Your task to perform on an android device: clear history in the chrome app Image 0: 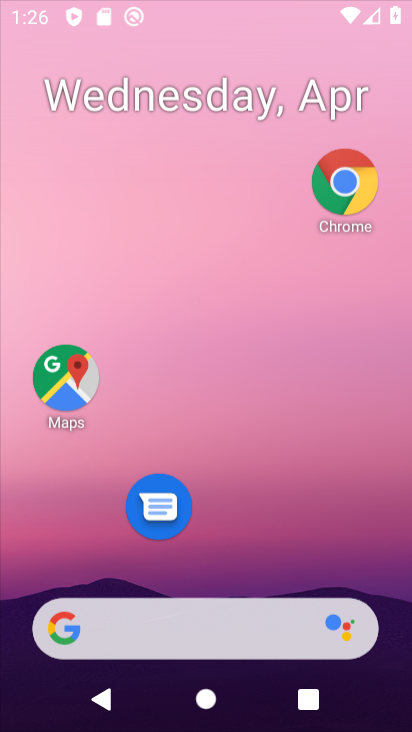
Step 0: click (397, 456)
Your task to perform on an android device: clear history in the chrome app Image 1: 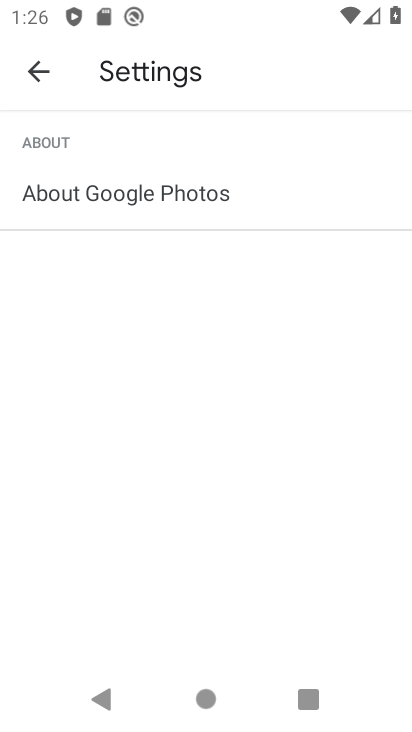
Step 1: press home button
Your task to perform on an android device: clear history in the chrome app Image 2: 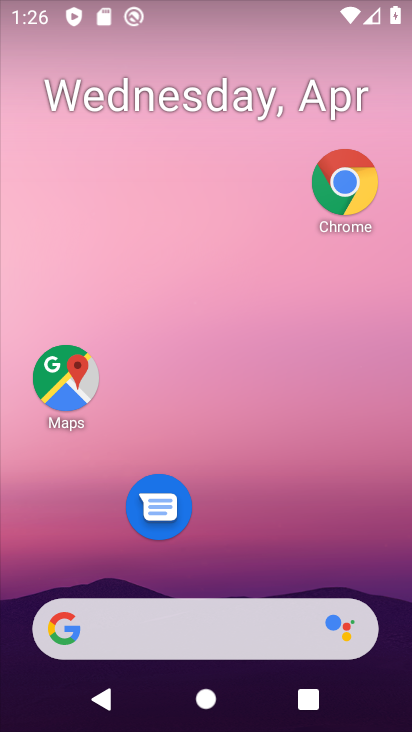
Step 2: click (350, 167)
Your task to perform on an android device: clear history in the chrome app Image 3: 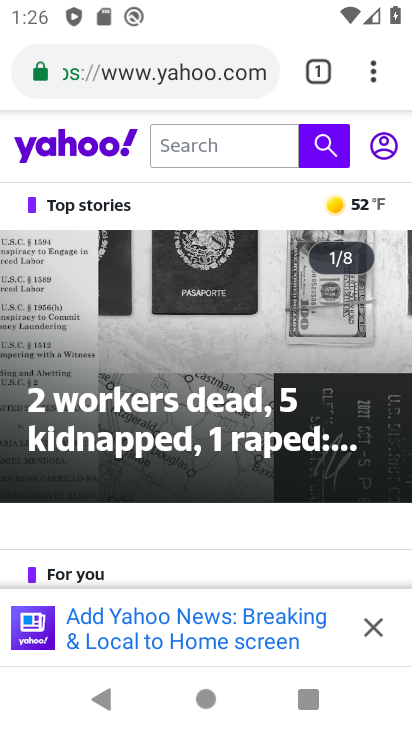
Step 3: click (399, 77)
Your task to perform on an android device: clear history in the chrome app Image 4: 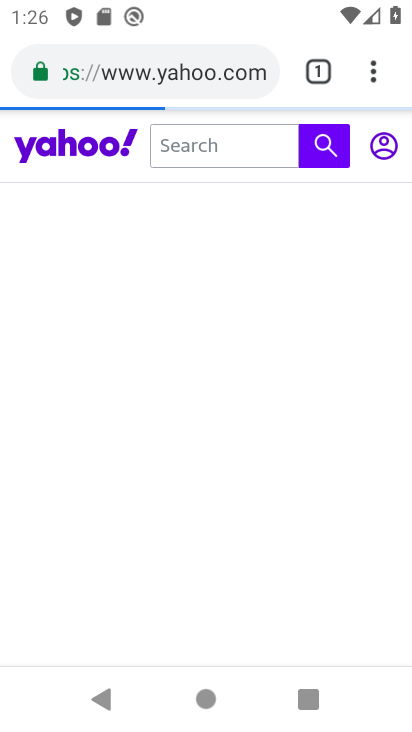
Step 4: drag from (365, 73) to (114, 504)
Your task to perform on an android device: clear history in the chrome app Image 5: 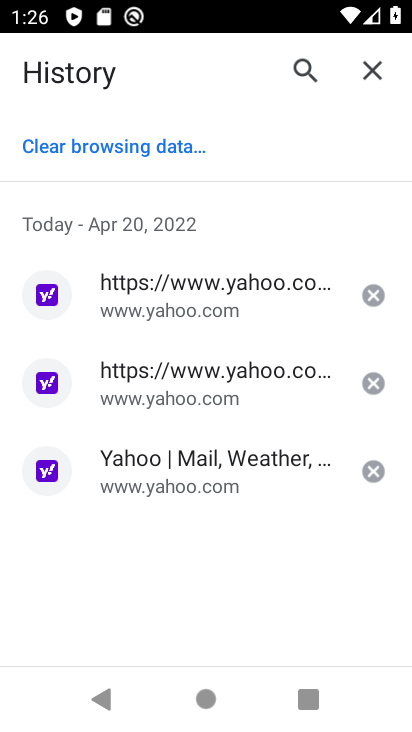
Step 5: click (116, 138)
Your task to perform on an android device: clear history in the chrome app Image 6: 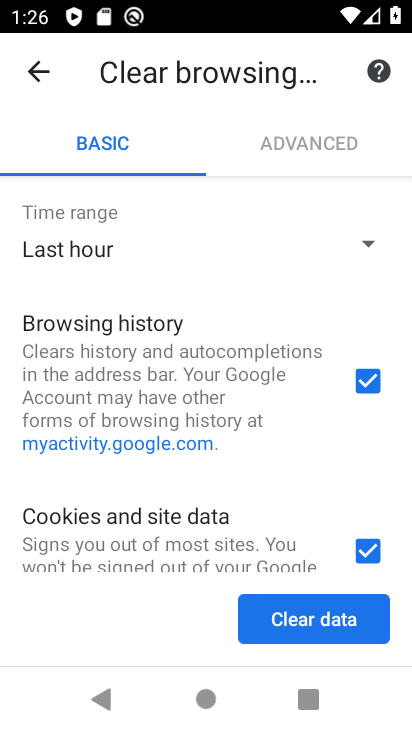
Step 6: click (328, 619)
Your task to perform on an android device: clear history in the chrome app Image 7: 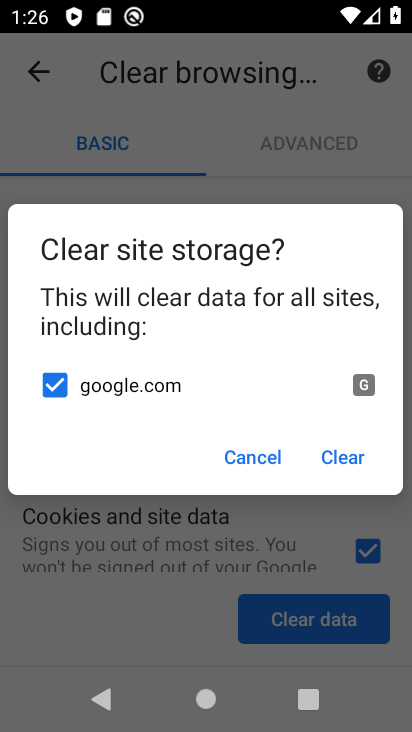
Step 7: click (345, 456)
Your task to perform on an android device: clear history in the chrome app Image 8: 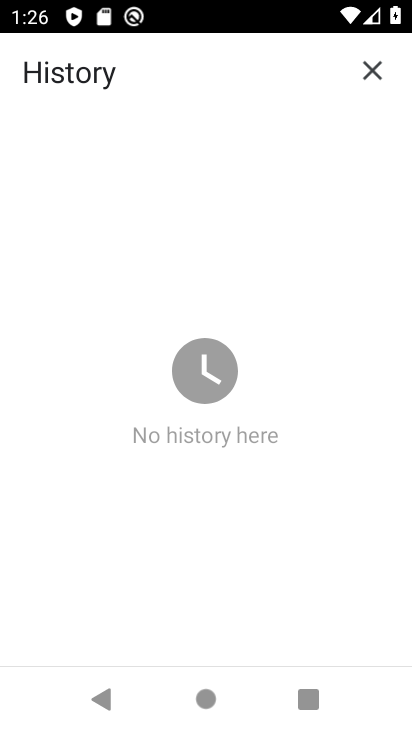
Step 8: task complete